Your task to perform on an android device: turn on data saver in the chrome app Image 0: 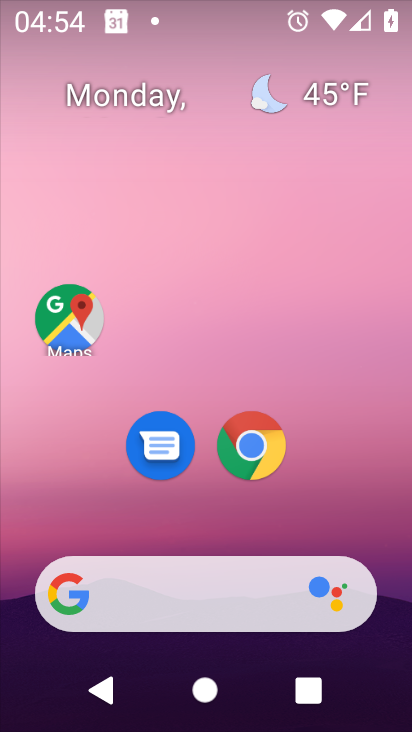
Step 0: click (245, 450)
Your task to perform on an android device: turn on data saver in the chrome app Image 1: 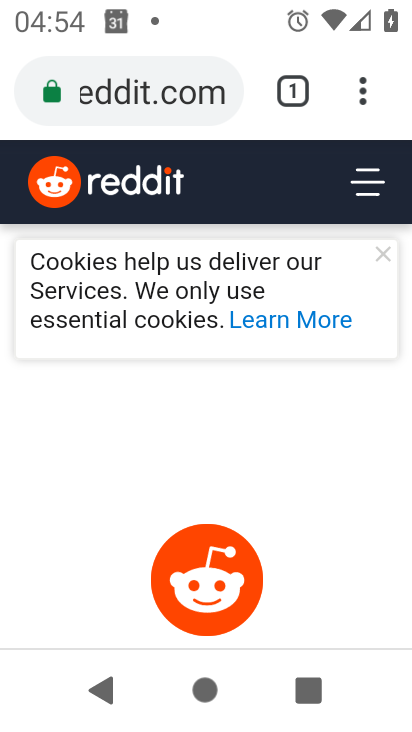
Step 1: click (373, 87)
Your task to perform on an android device: turn on data saver in the chrome app Image 2: 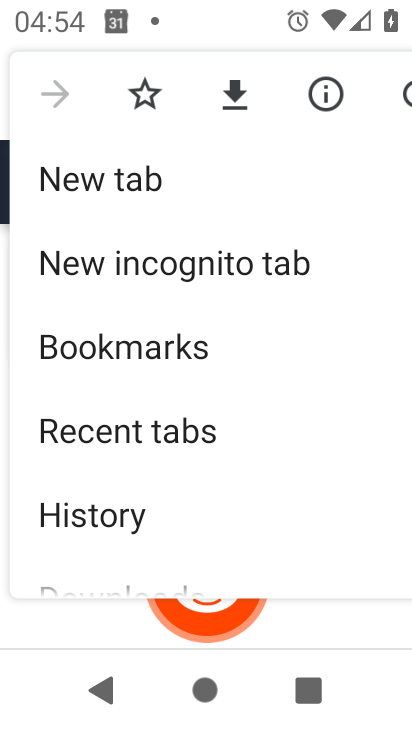
Step 2: drag from (138, 481) to (199, 86)
Your task to perform on an android device: turn on data saver in the chrome app Image 3: 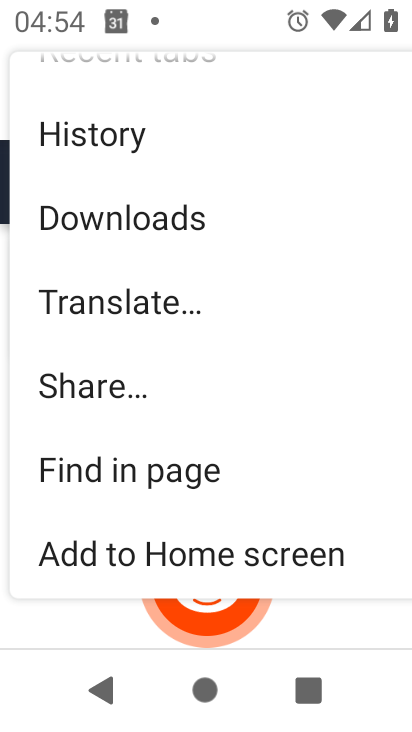
Step 3: drag from (155, 507) to (195, 140)
Your task to perform on an android device: turn on data saver in the chrome app Image 4: 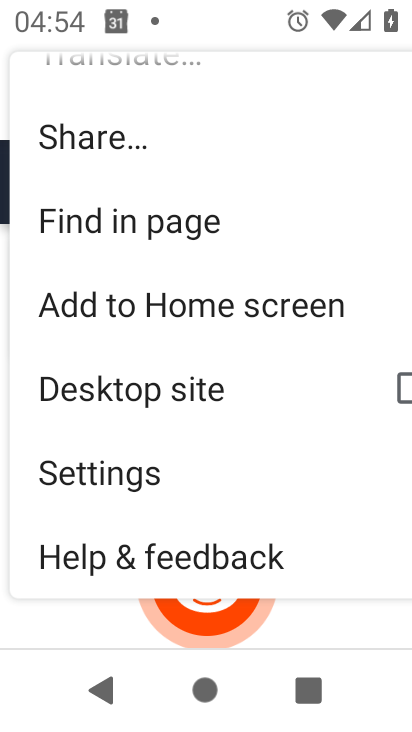
Step 4: click (146, 478)
Your task to perform on an android device: turn on data saver in the chrome app Image 5: 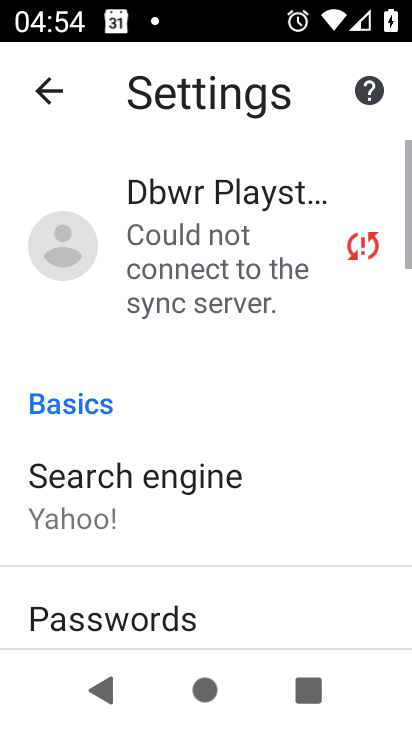
Step 5: drag from (47, 563) to (214, 164)
Your task to perform on an android device: turn on data saver in the chrome app Image 6: 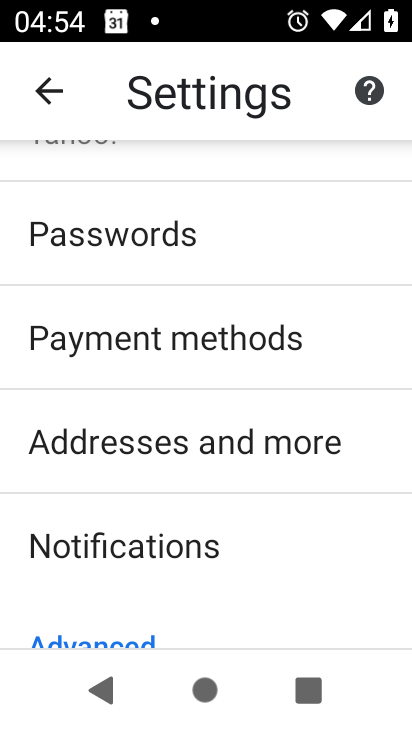
Step 6: drag from (209, 573) to (298, 91)
Your task to perform on an android device: turn on data saver in the chrome app Image 7: 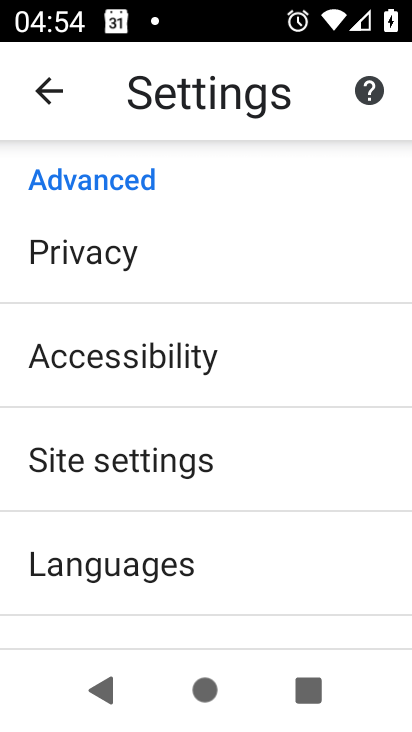
Step 7: drag from (128, 473) to (188, 163)
Your task to perform on an android device: turn on data saver in the chrome app Image 8: 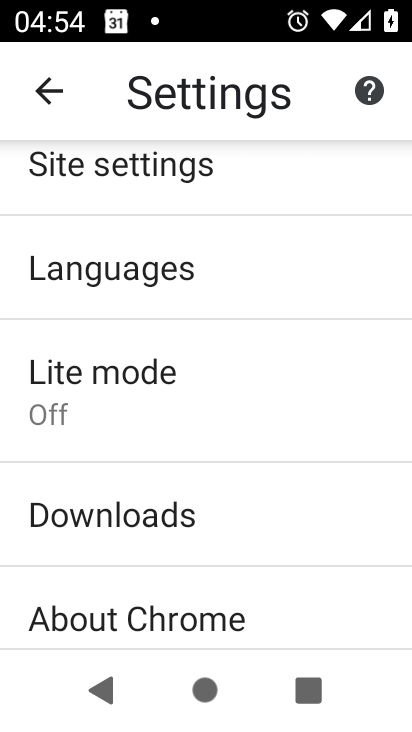
Step 8: click (124, 411)
Your task to perform on an android device: turn on data saver in the chrome app Image 9: 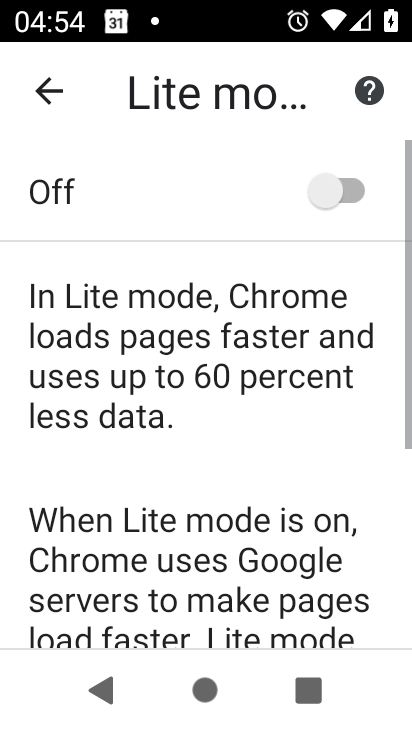
Step 9: click (345, 184)
Your task to perform on an android device: turn on data saver in the chrome app Image 10: 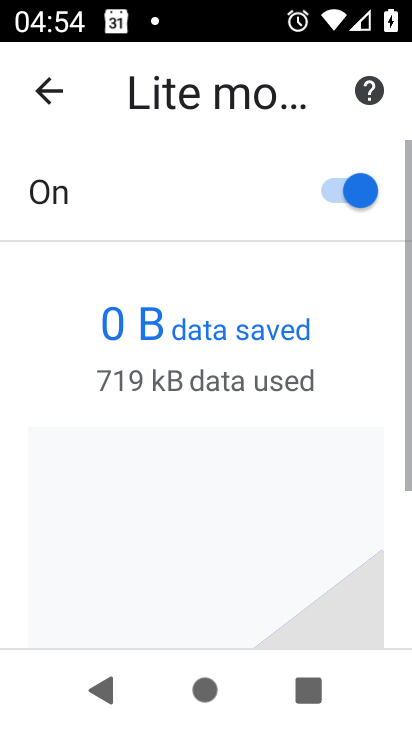
Step 10: task complete